Your task to perform on an android device: Open Youtube and go to "Your channel" Image 0: 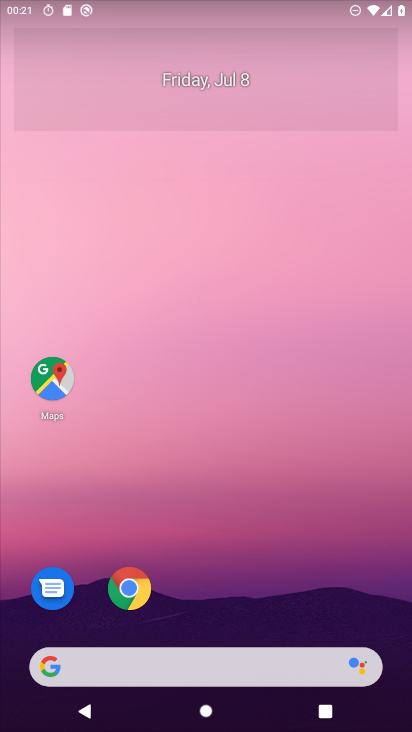
Step 0: drag from (278, 547) to (285, 118)
Your task to perform on an android device: Open Youtube and go to "Your channel" Image 1: 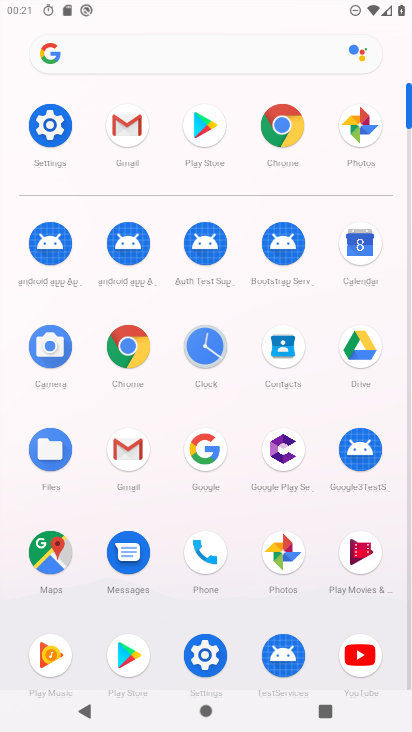
Step 1: click (351, 656)
Your task to perform on an android device: Open Youtube and go to "Your channel" Image 2: 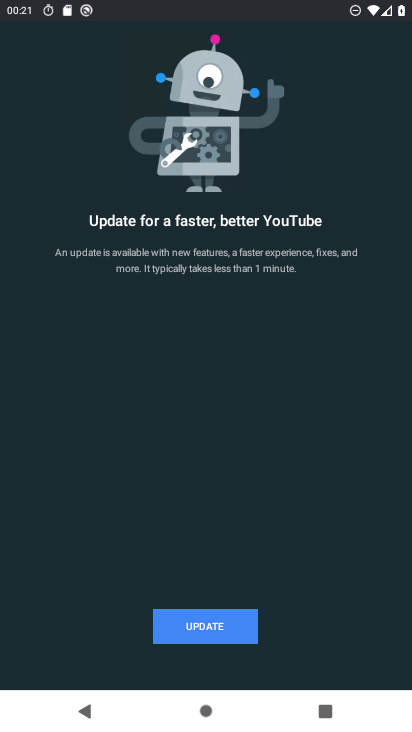
Step 2: task complete